Your task to perform on an android device: Search for Mexican restaurants on Maps Image 0: 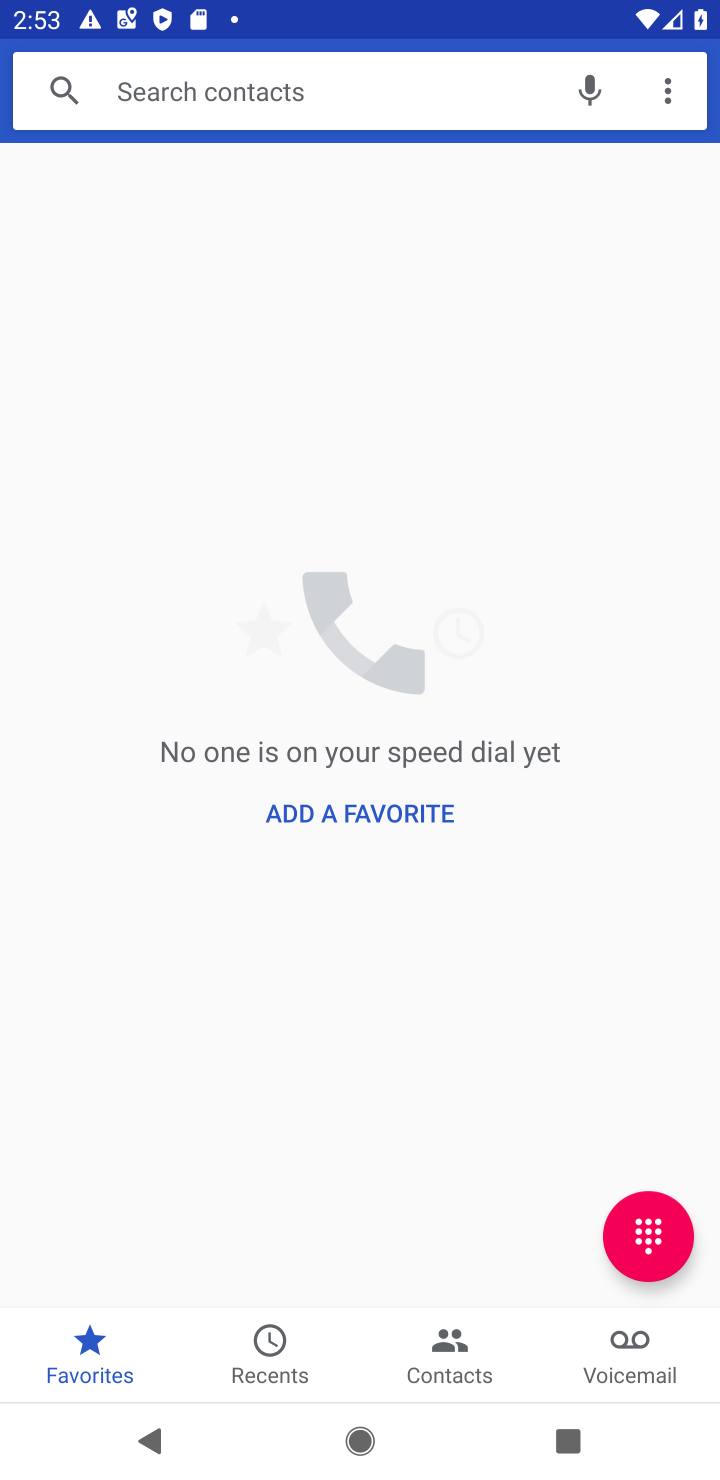
Step 0: press home button
Your task to perform on an android device: Search for Mexican restaurants on Maps Image 1: 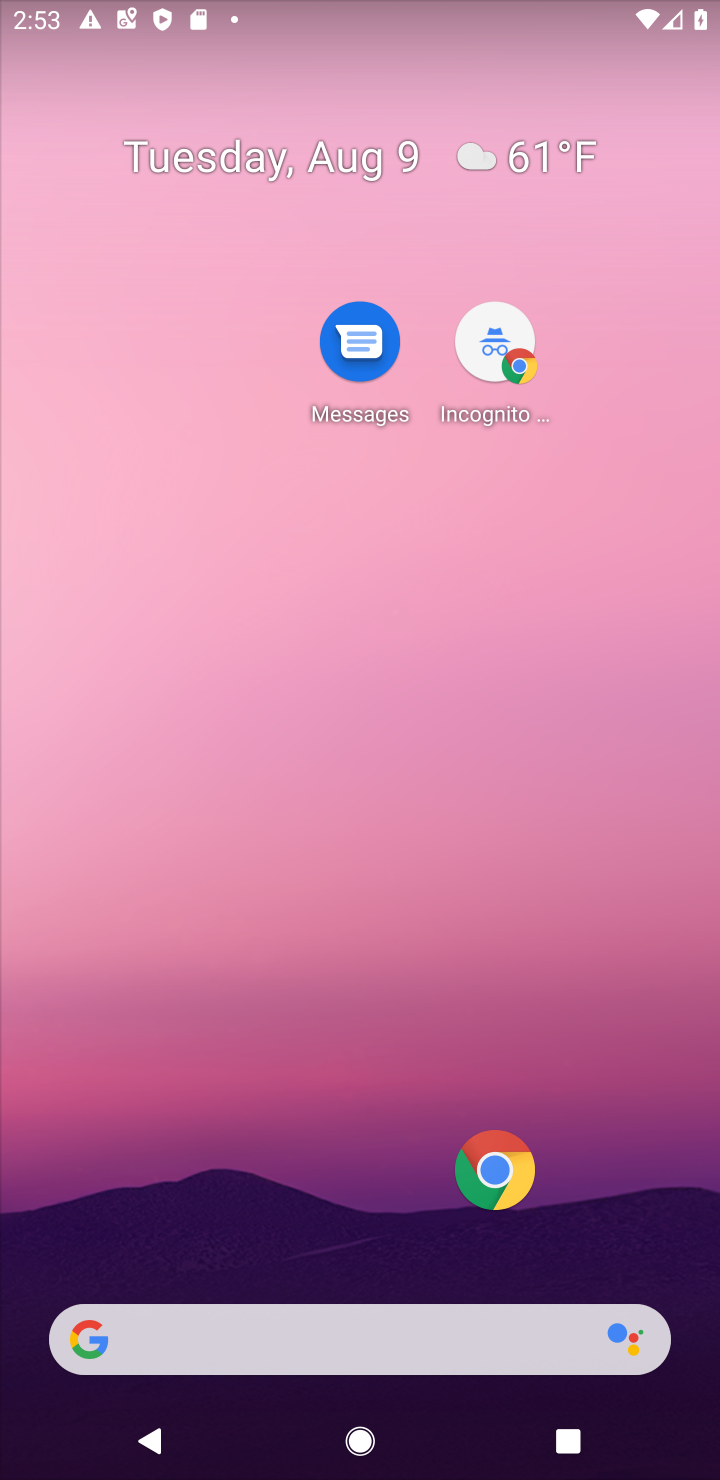
Step 1: drag from (314, 1134) to (400, 133)
Your task to perform on an android device: Search for Mexican restaurants on Maps Image 2: 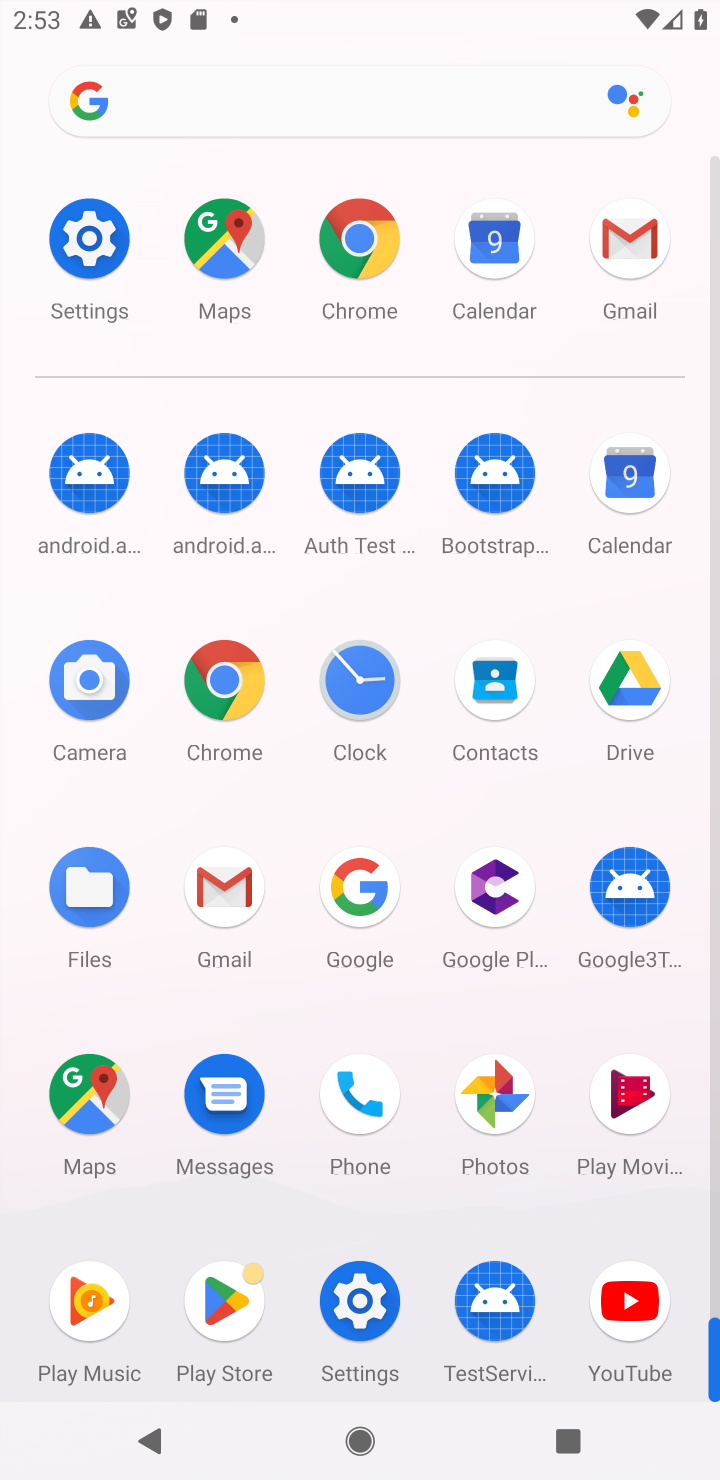
Step 2: click (90, 1121)
Your task to perform on an android device: Search for Mexican restaurants on Maps Image 3: 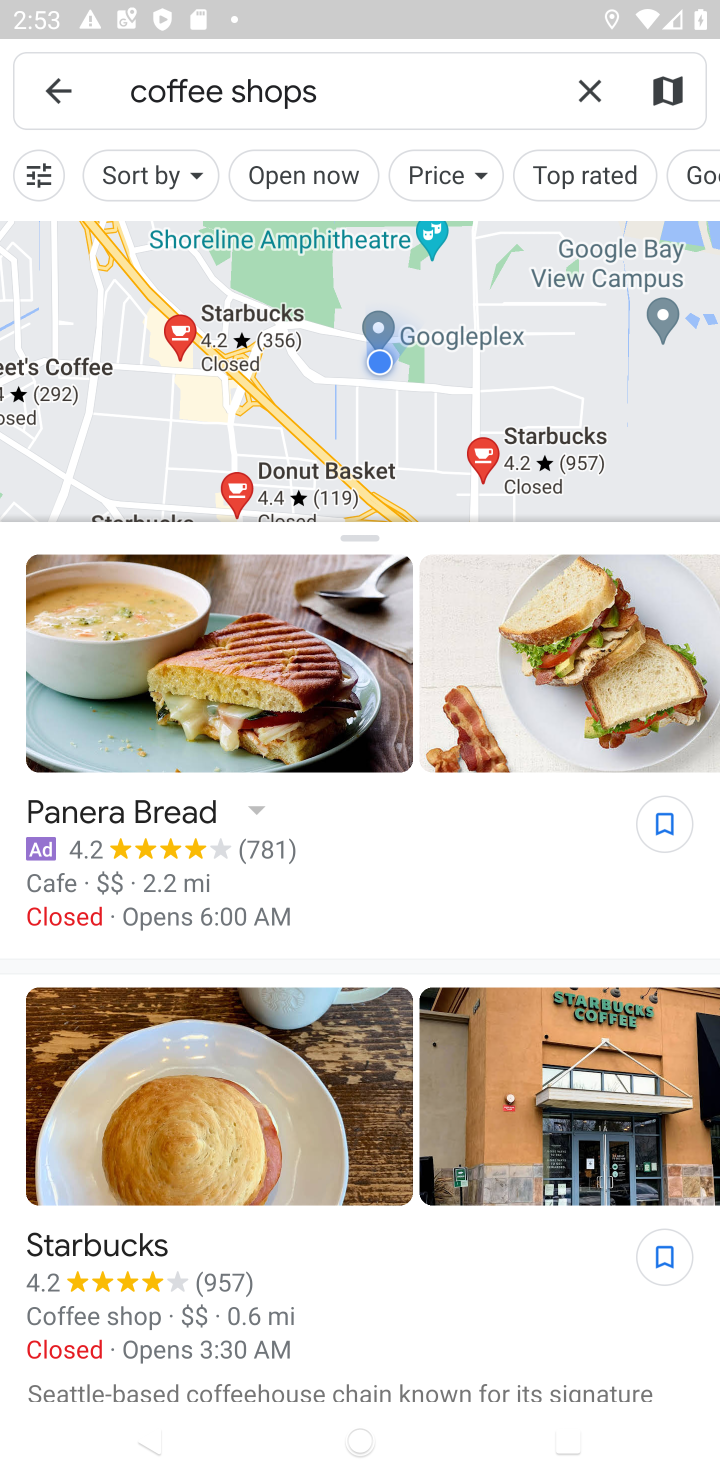
Step 3: click (598, 76)
Your task to perform on an android device: Search for Mexican restaurants on Maps Image 4: 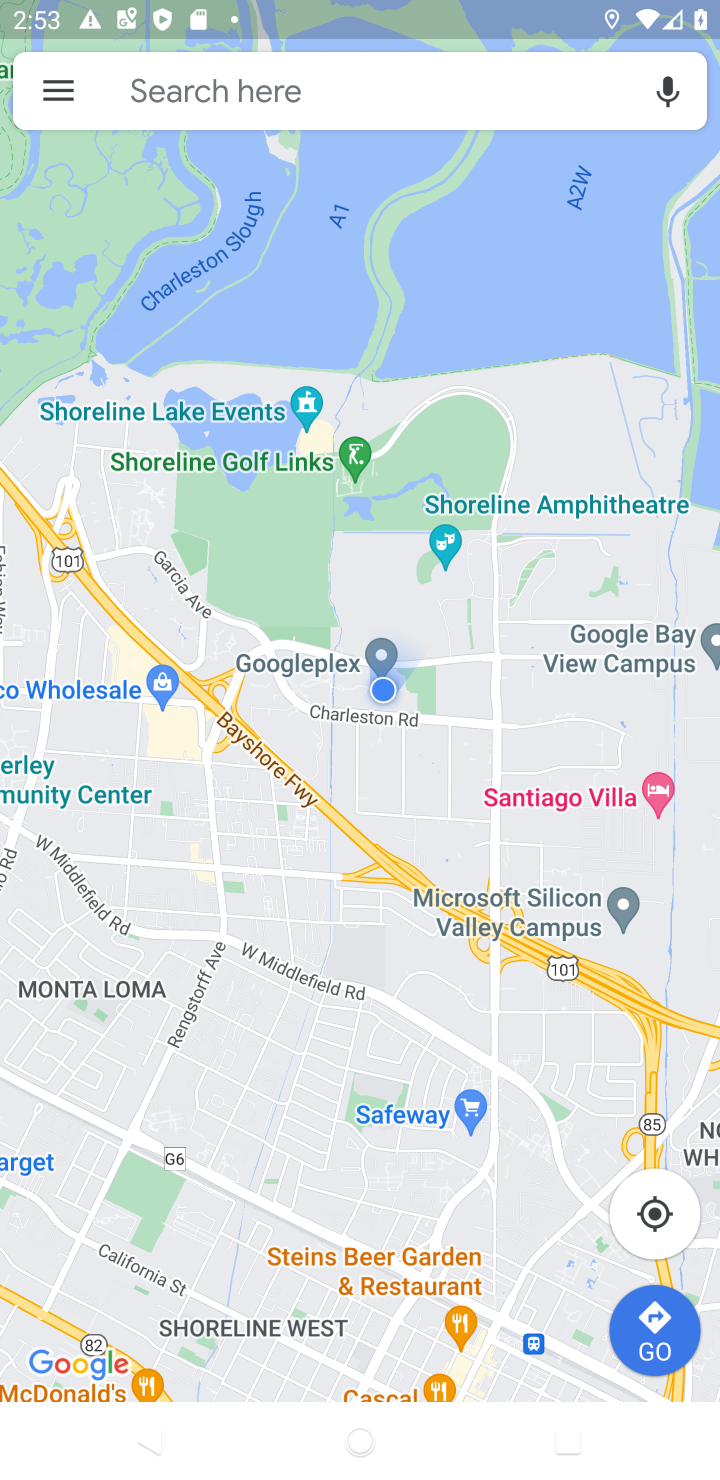
Step 4: type "mexican restaurants"
Your task to perform on an android device: Search for Mexican restaurants on Maps Image 5: 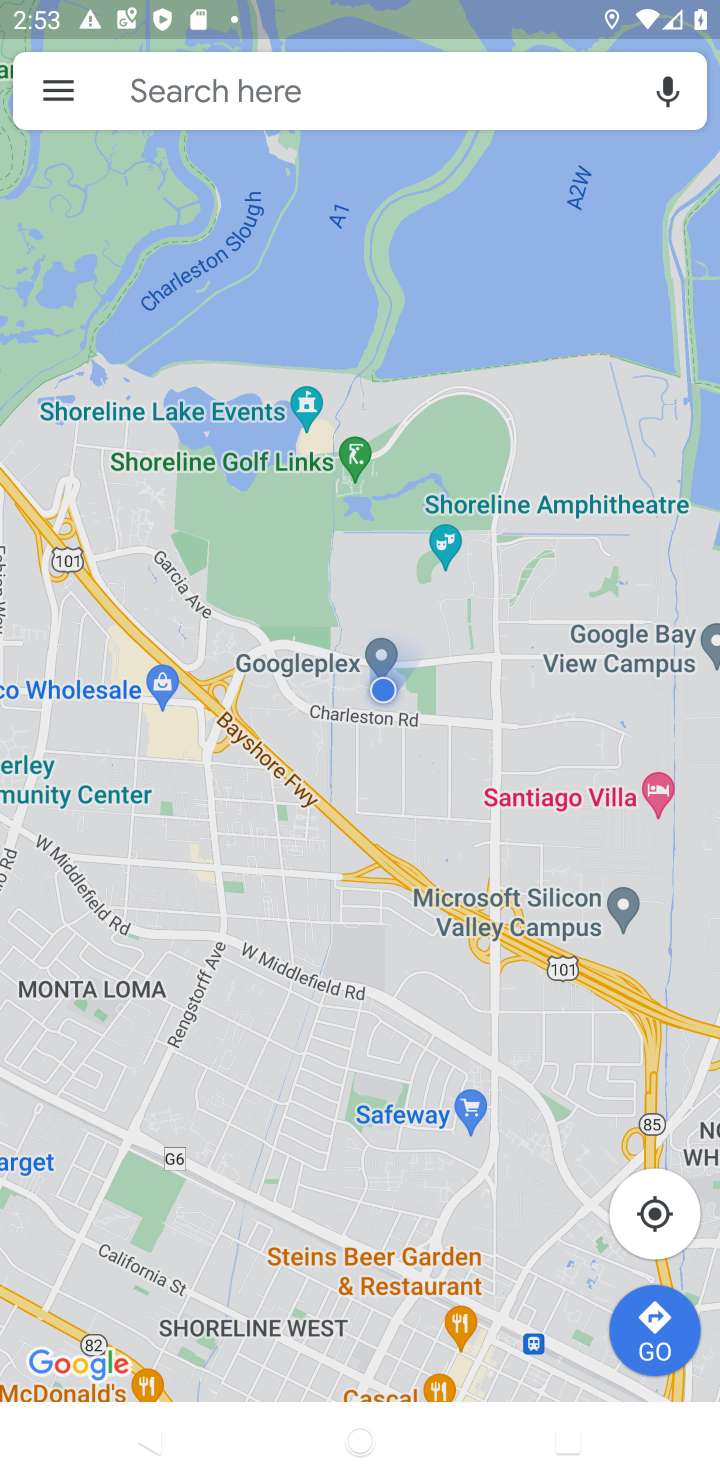
Step 5: click (374, 93)
Your task to perform on an android device: Search for Mexican restaurants on Maps Image 6: 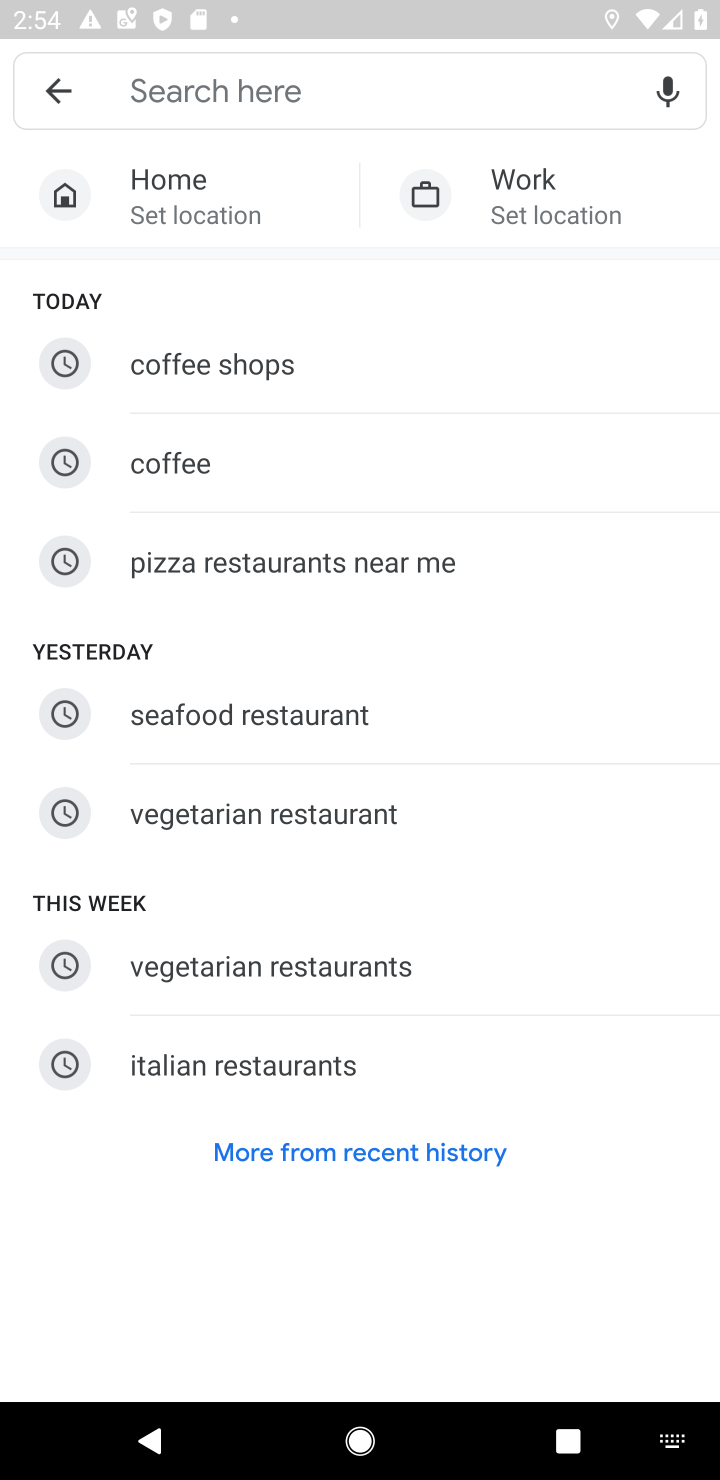
Step 6: type "mexican restaurants"
Your task to perform on an android device: Search for Mexican restaurants on Maps Image 7: 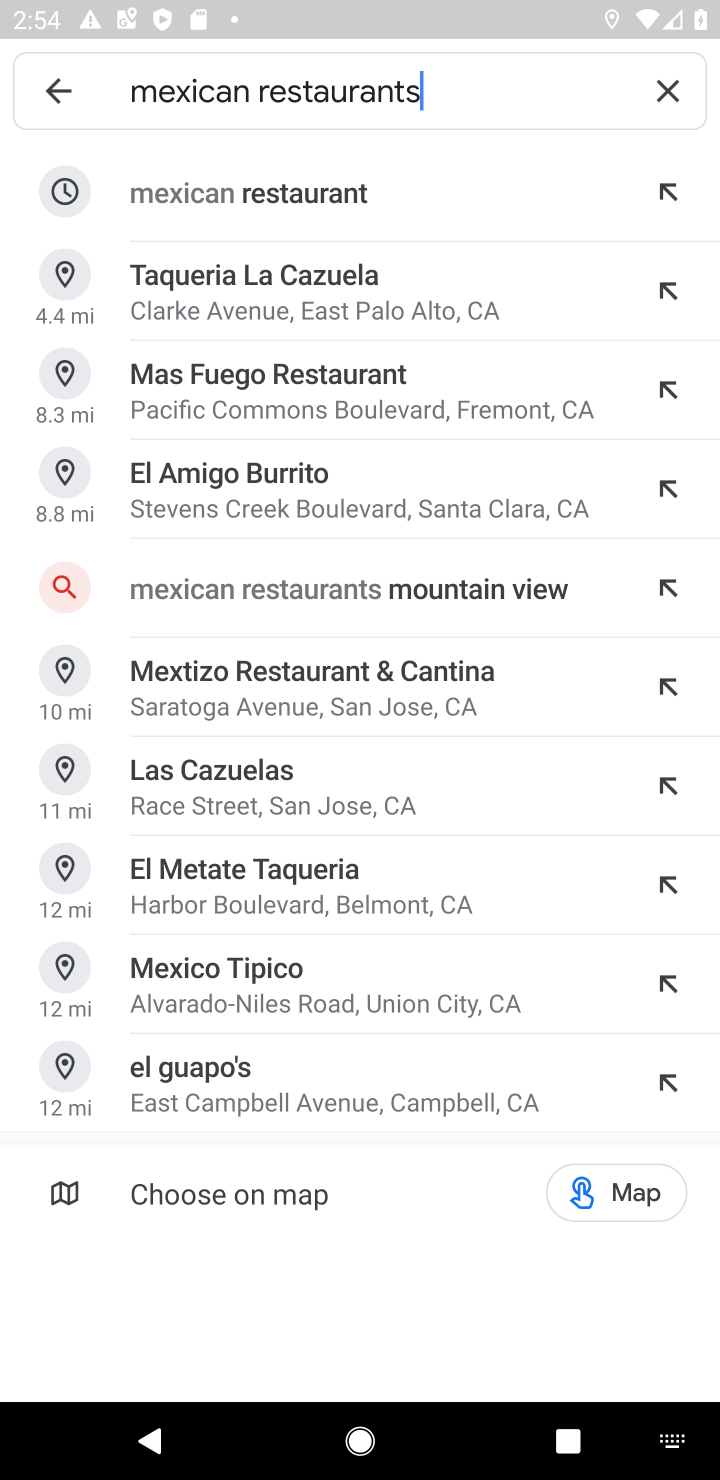
Step 7: click (268, 206)
Your task to perform on an android device: Search for Mexican restaurants on Maps Image 8: 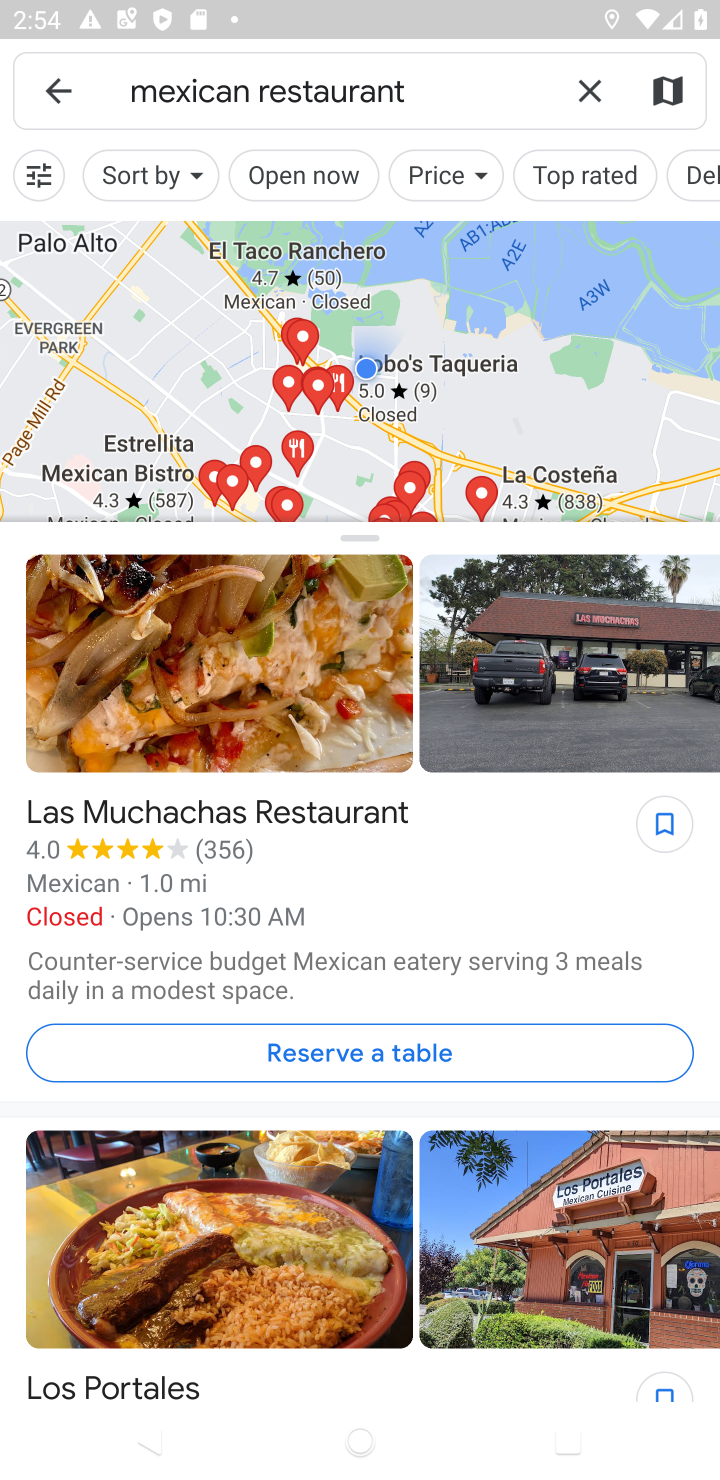
Step 8: task complete